Your task to perform on an android device: What's on my calendar today? Image 0: 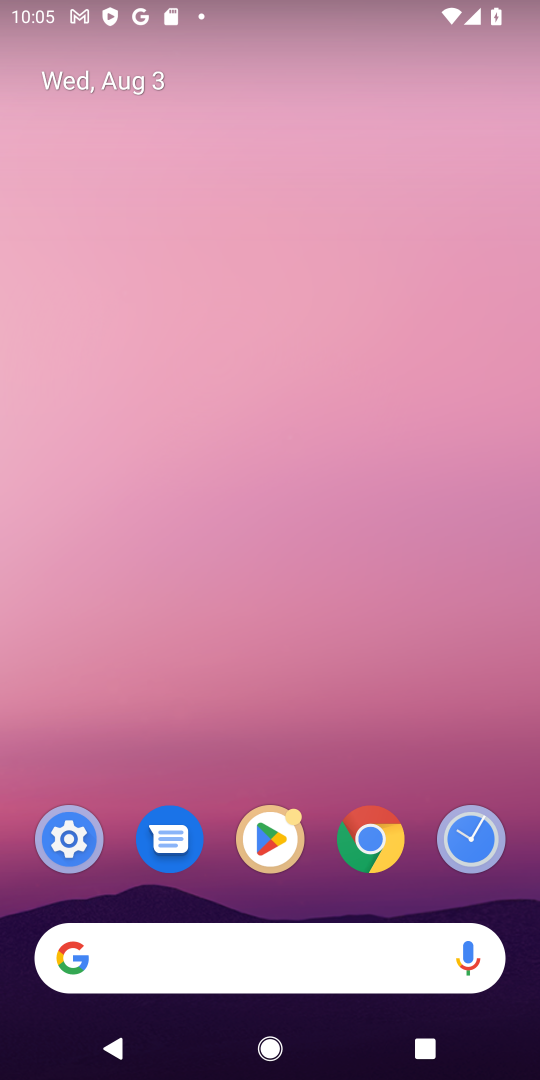
Step 0: drag from (257, 912) to (410, 9)
Your task to perform on an android device: What's on my calendar today? Image 1: 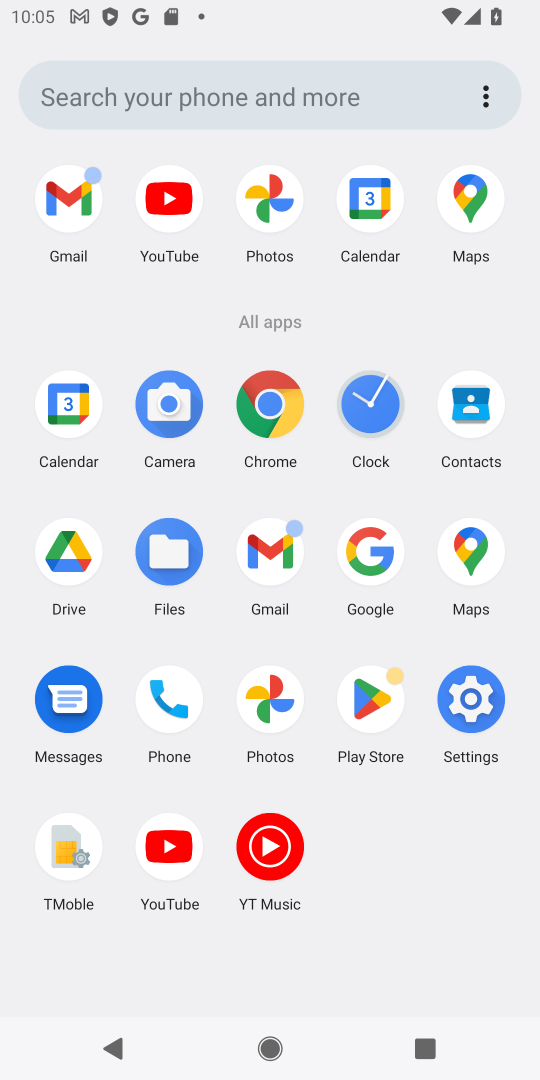
Step 1: click (62, 399)
Your task to perform on an android device: What's on my calendar today? Image 2: 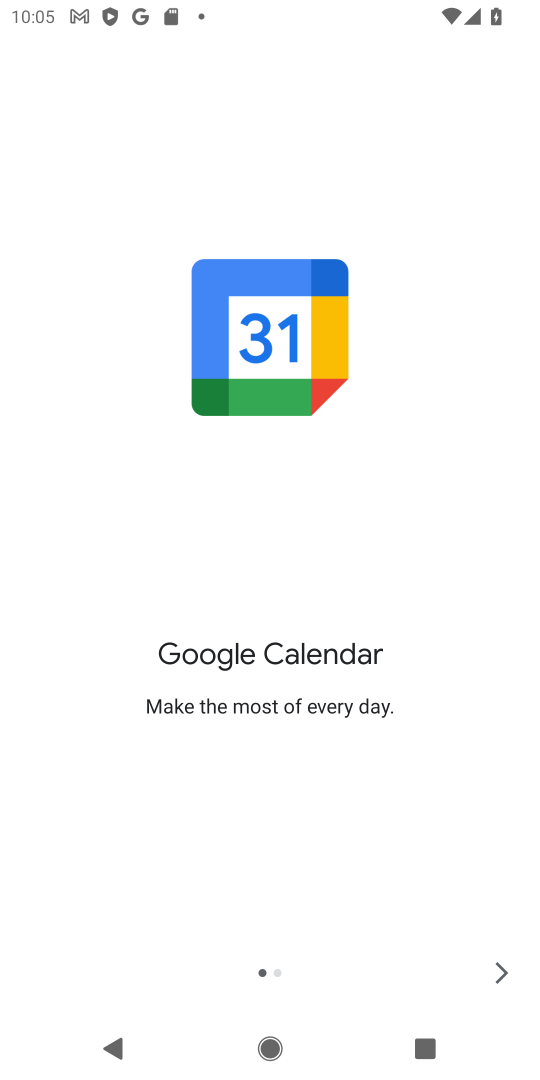
Step 2: click (485, 952)
Your task to perform on an android device: What's on my calendar today? Image 3: 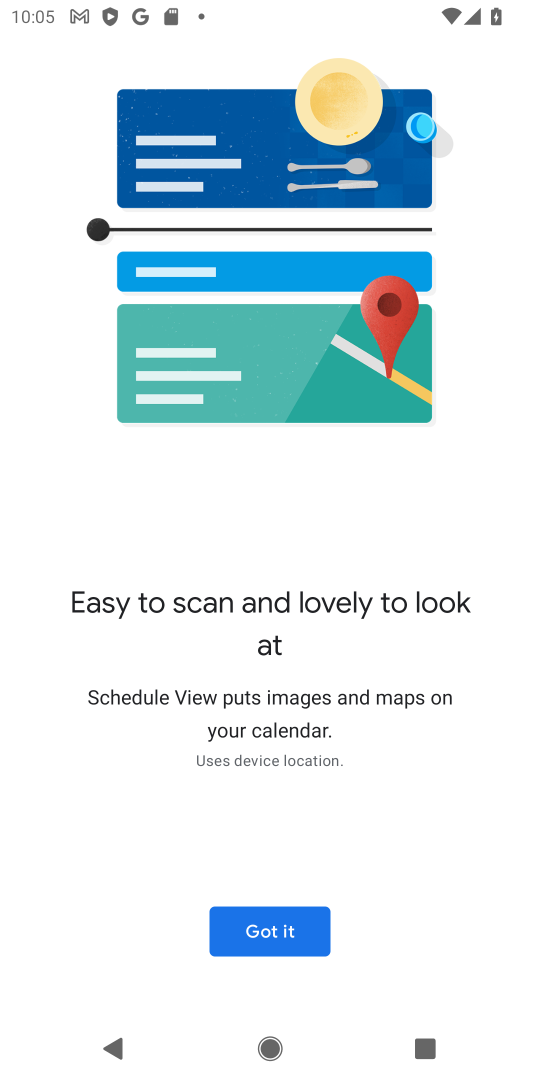
Step 3: click (285, 935)
Your task to perform on an android device: What's on my calendar today? Image 4: 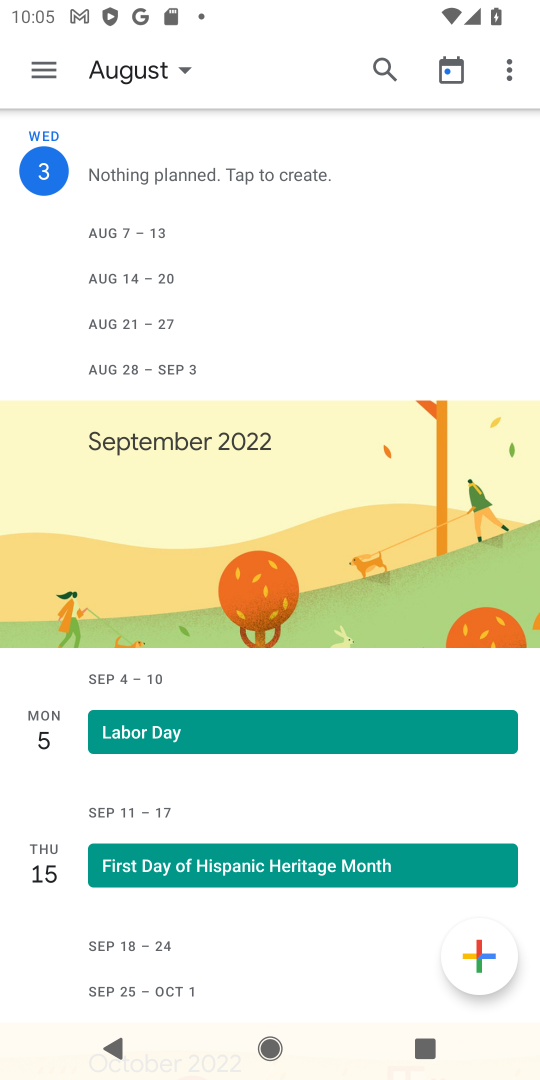
Step 4: click (45, 66)
Your task to perform on an android device: What's on my calendar today? Image 5: 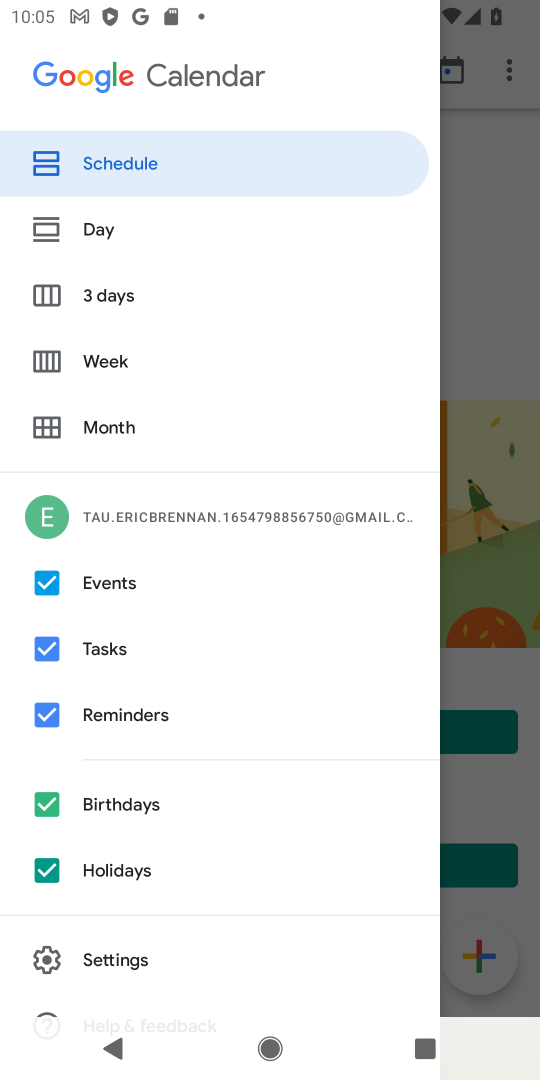
Step 5: click (110, 232)
Your task to perform on an android device: What's on my calendar today? Image 6: 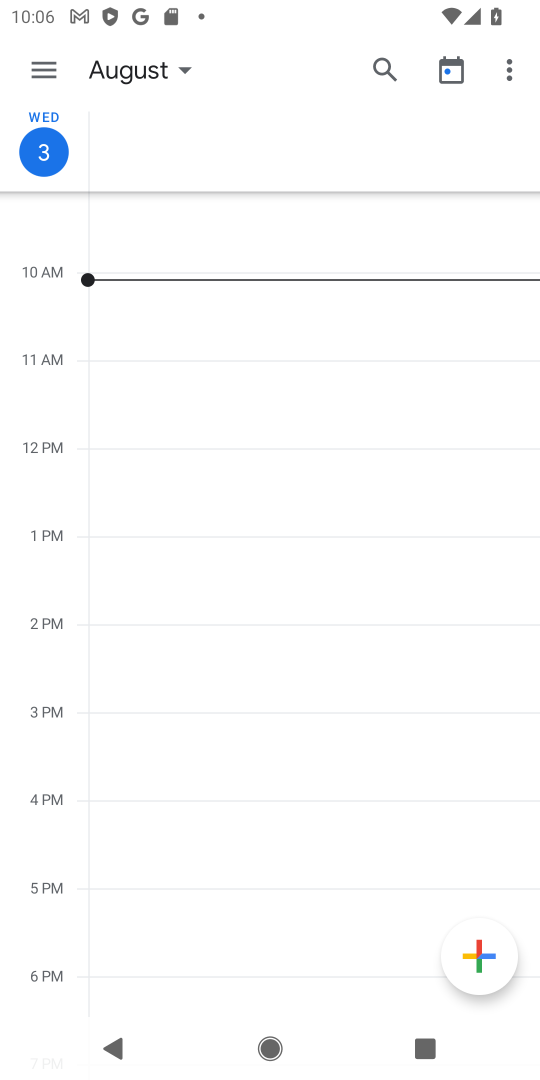
Step 6: task complete